Your task to perform on an android device: turn pop-ups on in chrome Image 0: 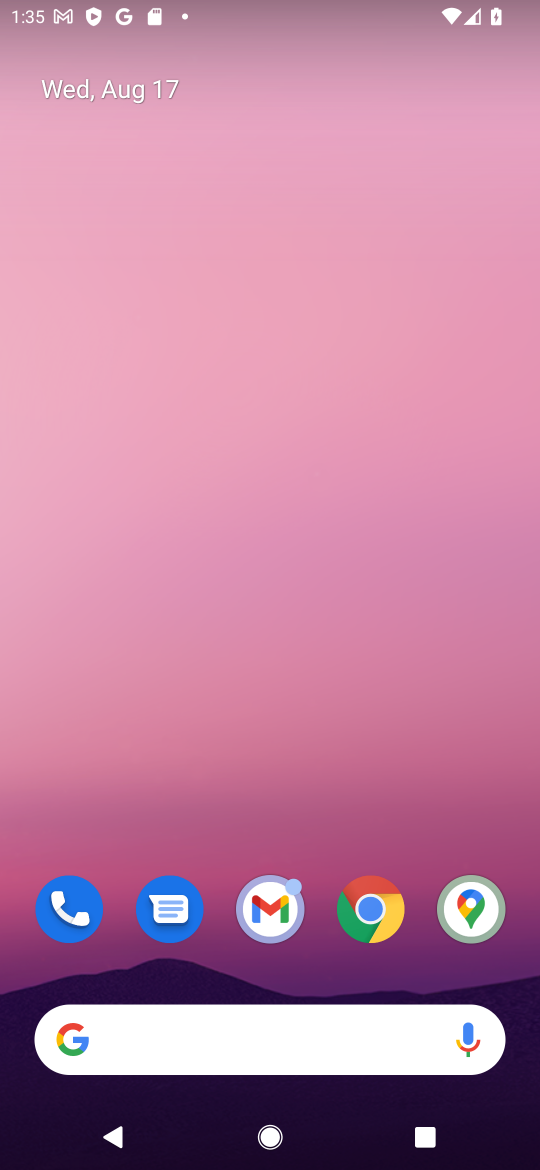
Step 0: drag from (266, 773) to (313, 130)
Your task to perform on an android device: turn pop-ups on in chrome Image 1: 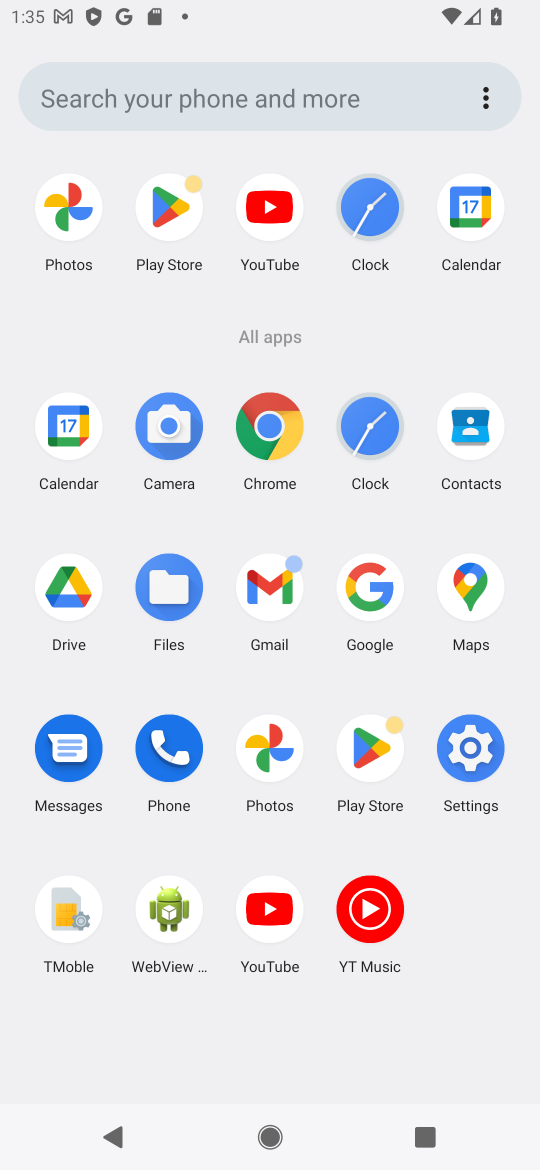
Step 1: click (271, 430)
Your task to perform on an android device: turn pop-ups on in chrome Image 2: 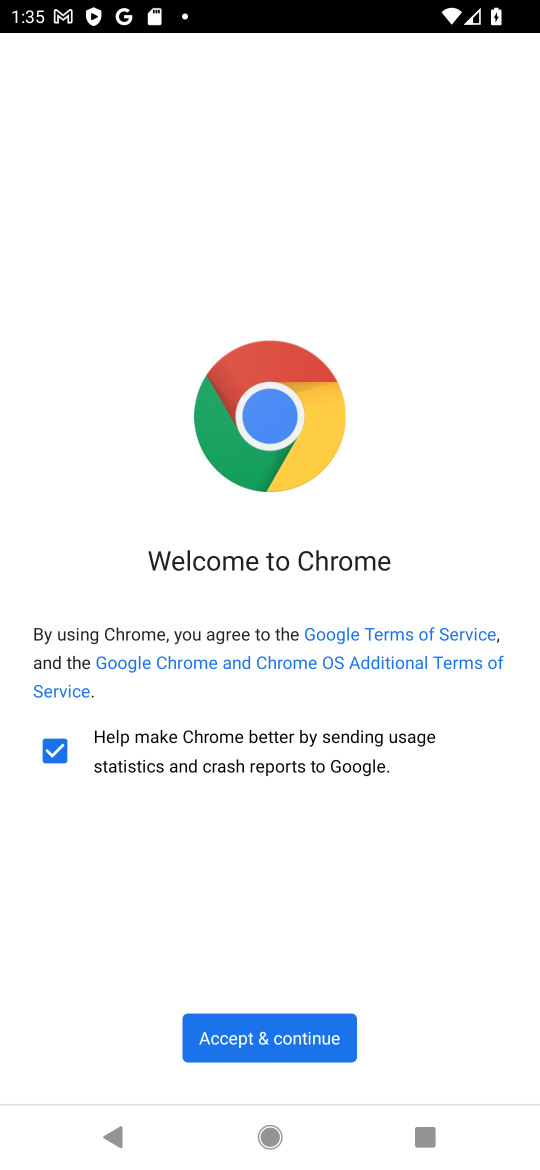
Step 2: click (289, 1061)
Your task to perform on an android device: turn pop-ups on in chrome Image 3: 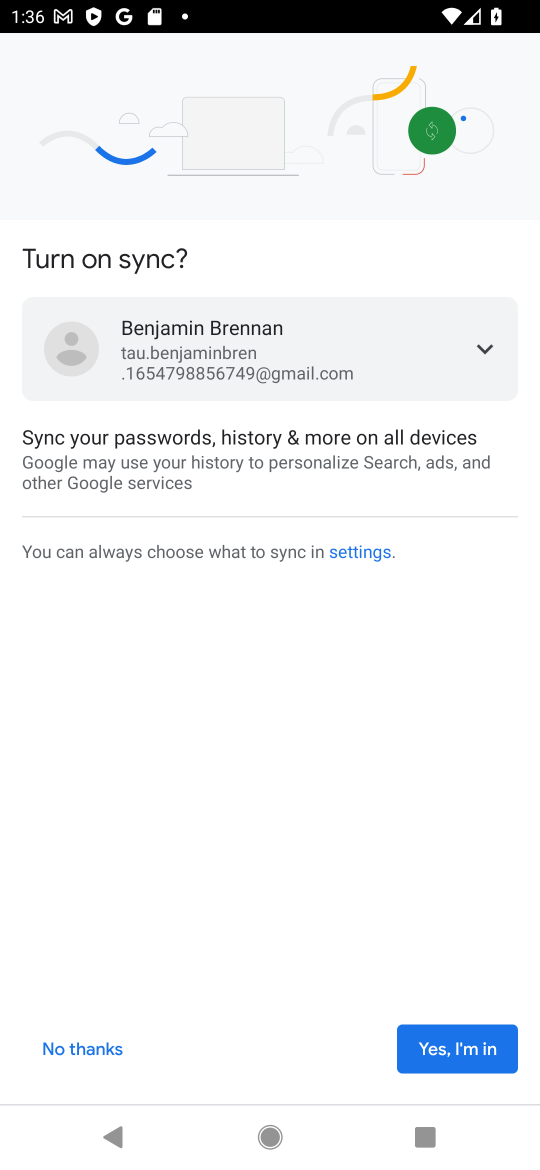
Step 3: click (98, 1046)
Your task to perform on an android device: turn pop-ups on in chrome Image 4: 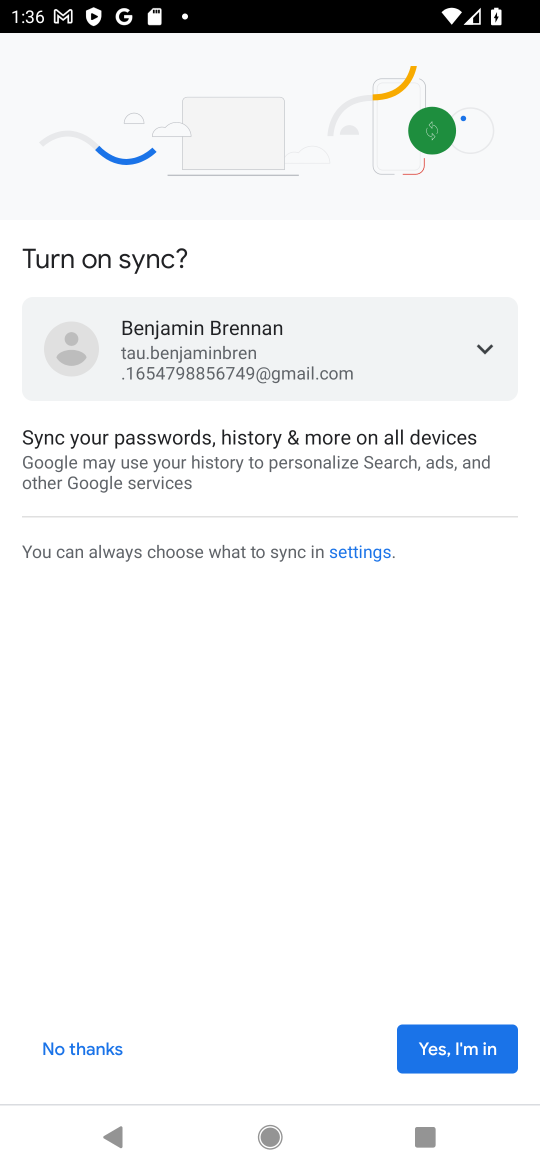
Step 4: task complete